Your task to perform on an android device: turn vacation reply on in the gmail app Image 0: 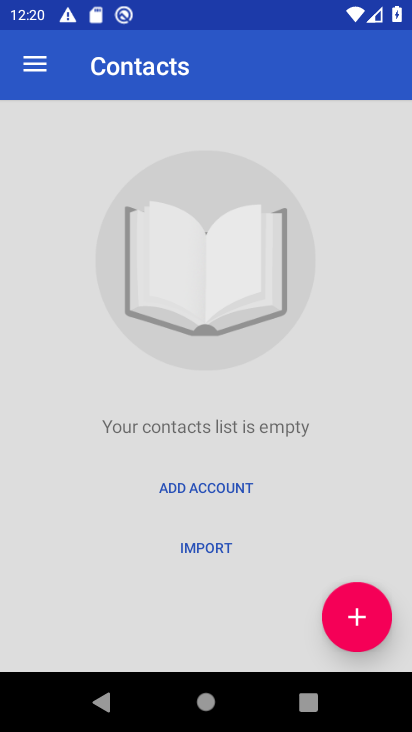
Step 0: press home button
Your task to perform on an android device: turn vacation reply on in the gmail app Image 1: 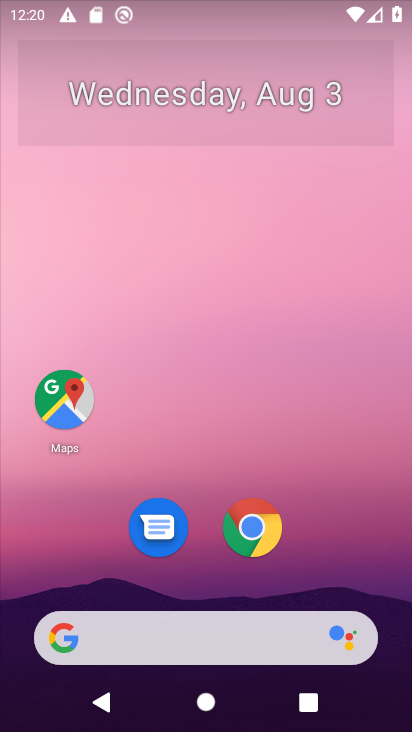
Step 1: drag from (49, 655) to (40, 716)
Your task to perform on an android device: turn vacation reply on in the gmail app Image 2: 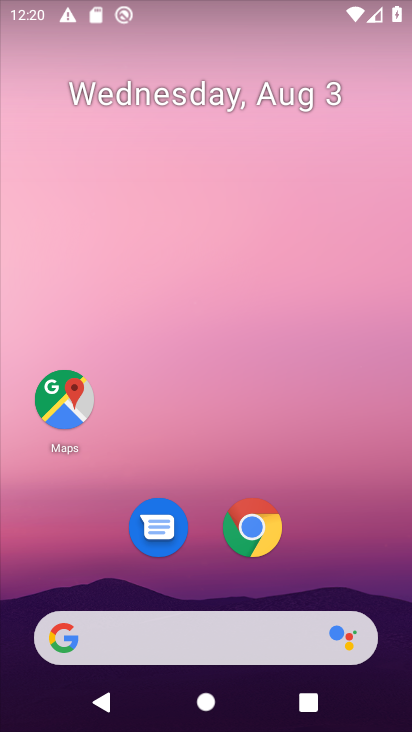
Step 2: drag from (42, 713) to (213, 410)
Your task to perform on an android device: turn vacation reply on in the gmail app Image 3: 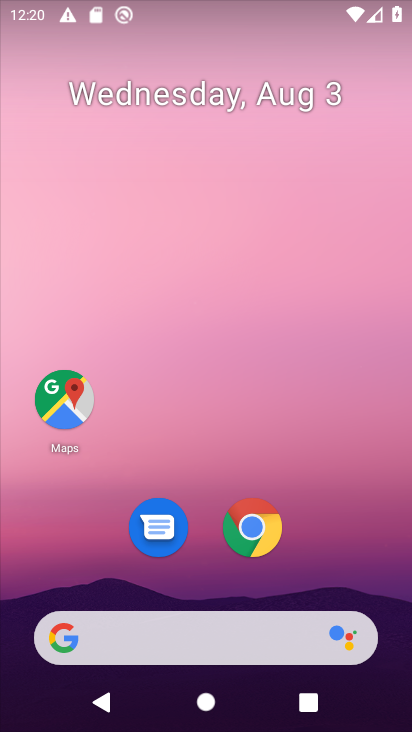
Step 3: drag from (46, 702) to (227, 133)
Your task to perform on an android device: turn vacation reply on in the gmail app Image 4: 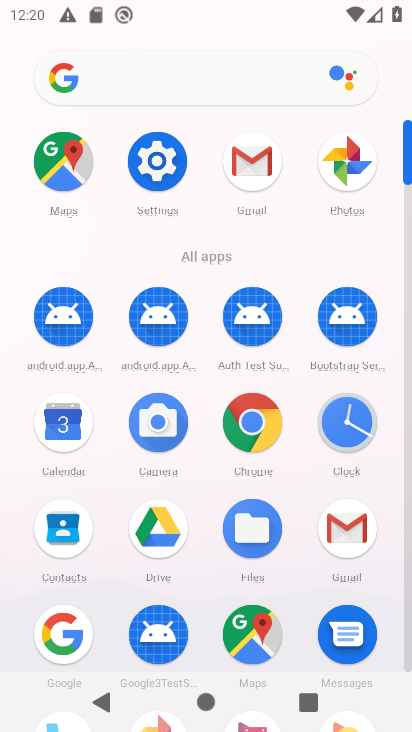
Step 4: click (365, 538)
Your task to perform on an android device: turn vacation reply on in the gmail app Image 5: 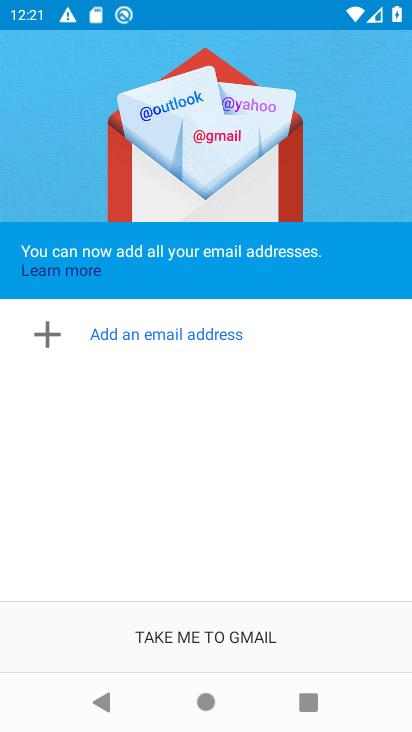
Step 5: click (189, 633)
Your task to perform on an android device: turn vacation reply on in the gmail app Image 6: 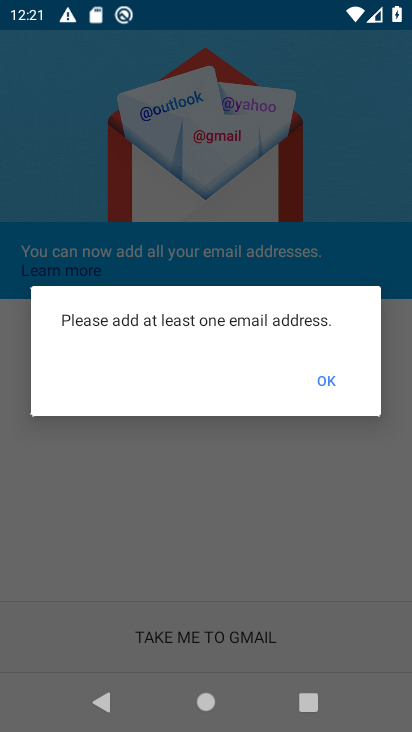
Step 6: click (322, 384)
Your task to perform on an android device: turn vacation reply on in the gmail app Image 7: 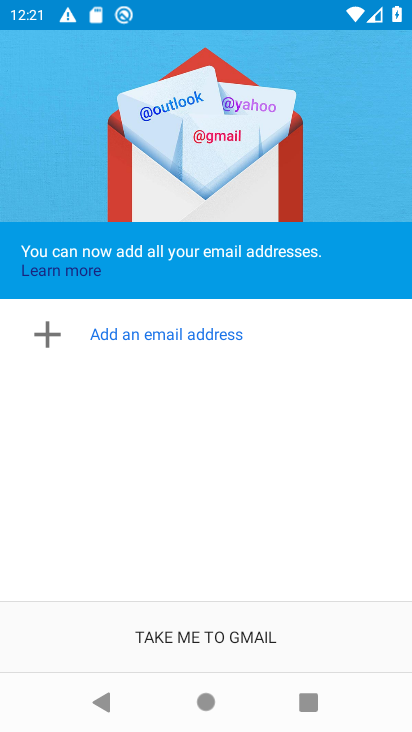
Step 7: task complete